Your task to perform on an android device: check data usage Image 0: 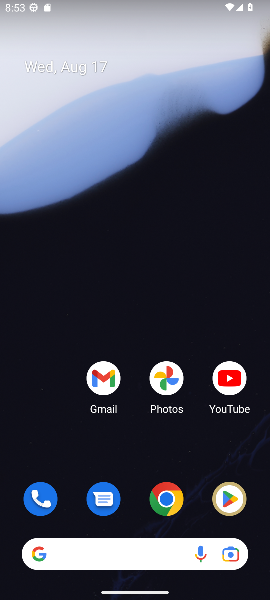
Step 0: drag from (222, 5) to (2, 363)
Your task to perform on an android device: check data usage Image 1: 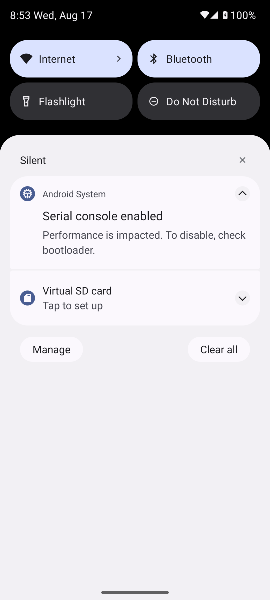
Step 1: click (70, 56)
Your task to perform on an android device: check data usage Image 2: 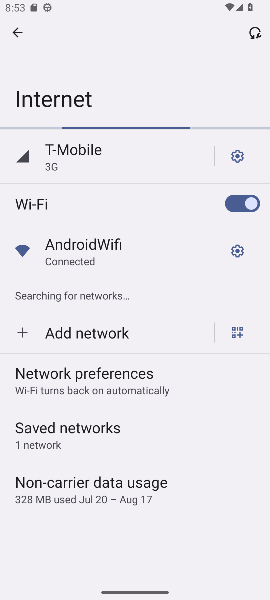
Step 2: click (125, 489)
Your task to perform on an android device: check data usage Image 3: 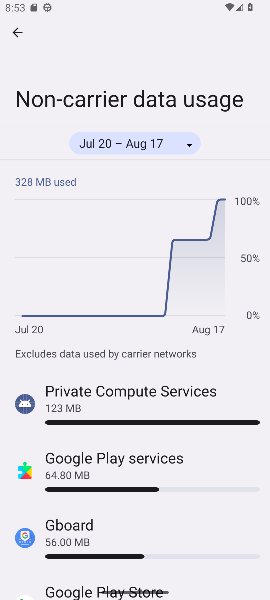
Step 3: task complete